Your task to perform on an android device: open sync settings in chrome Image 0: 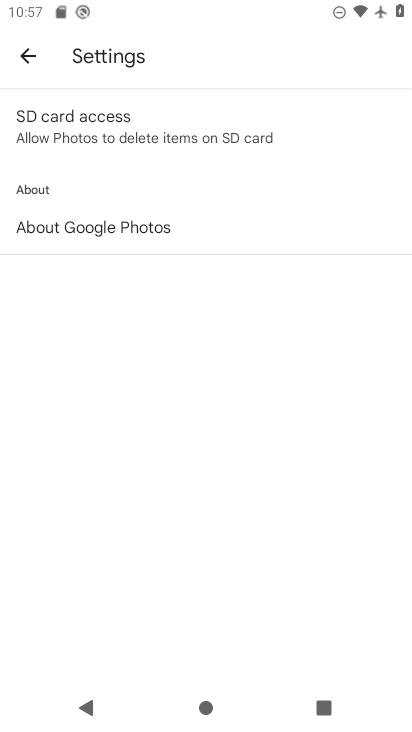
Step 0: press home button
Your task to perform on an android device: open sync settings in chrome Image 1: 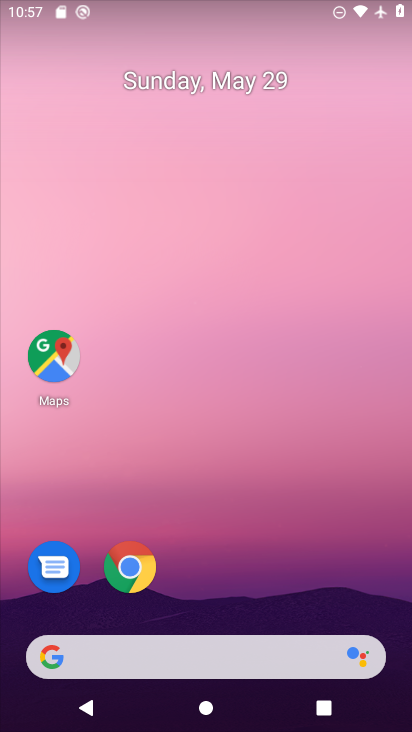
Step 1: click (131, 564)
Your task to perform on an android device: open sync settings in chrome Image 2: 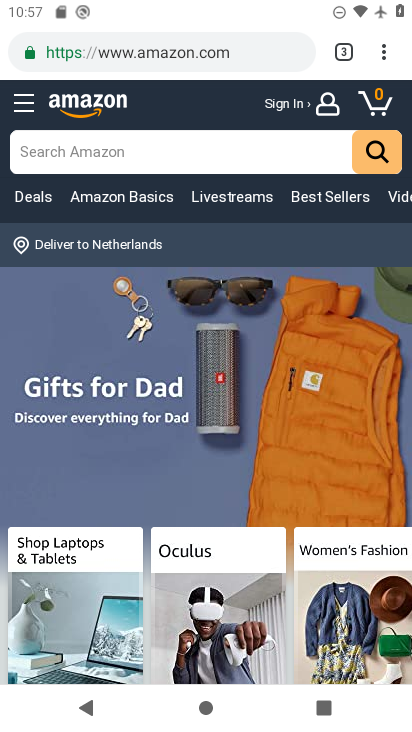
Step 2: click (383, 56)
Your task to perform on an android device: open sync settings in chrome Image 3: 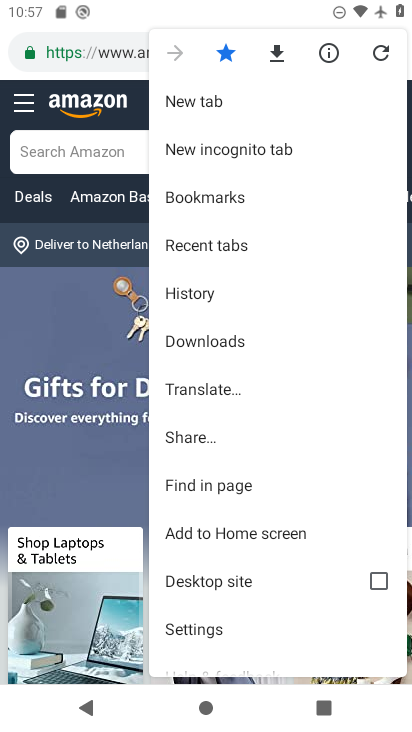
Step 3: click (215, 627)
Your task to perform on an android device: open sync settings in chrome Image 4: 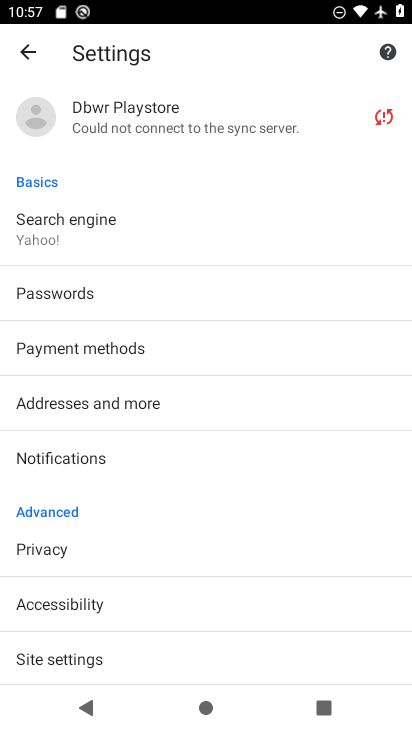
Step 4: click (133, 138)
Your task to perform on an android device: open sync settings in chrome Image 5: 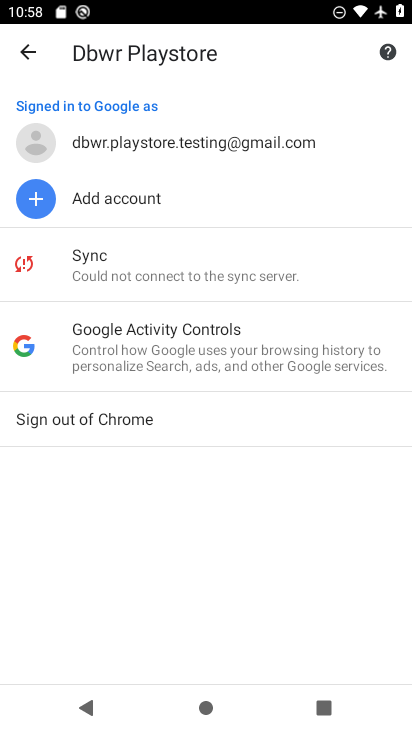
Step 5: click (105, 253)
Your task to perform on an android device: open sync settings in chrome Image 6: 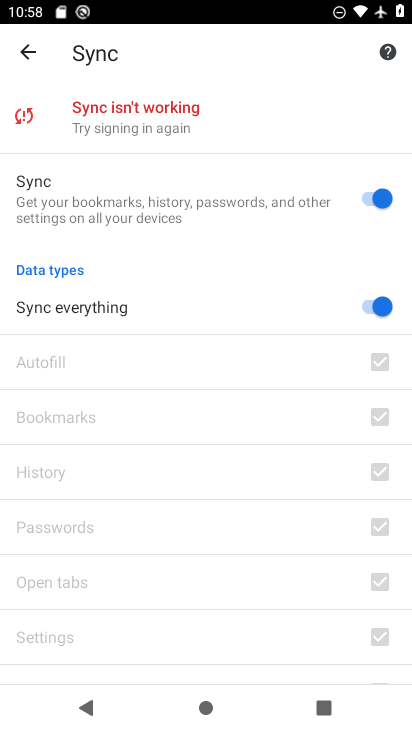
Step 6: task complete